Your task to perform on an android device: turn on the 24-hour format for clock Image 0: 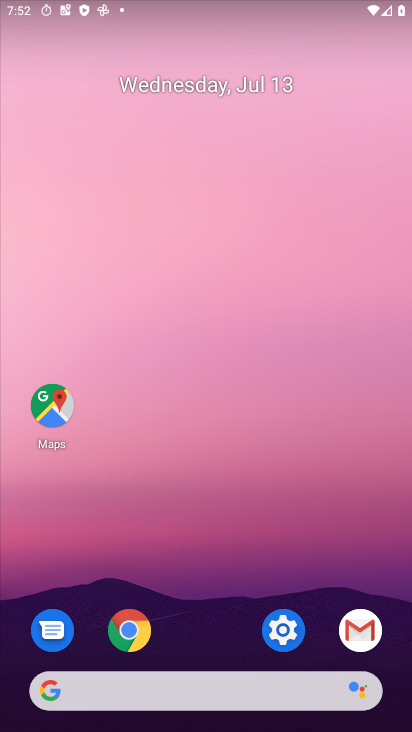
Step 0: drag from (247, 662) to (304, 131)
Your task to perform on an android device: turn on the 24-hour format for clock Image 1: 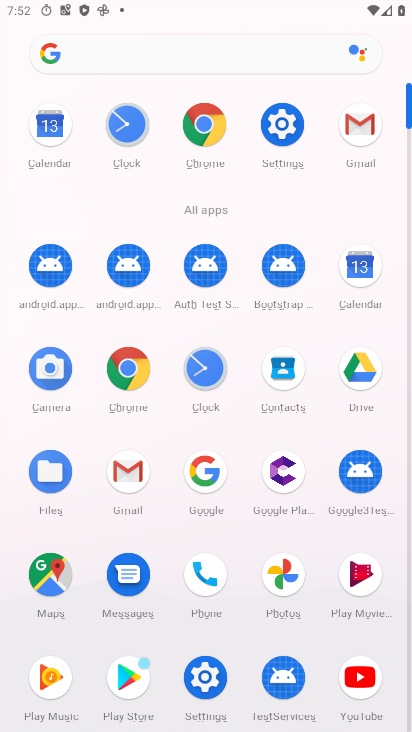
Step 1: click (197, 390)
Your task to perform on an android device: turn on the 24-hour format for clock Image 2: 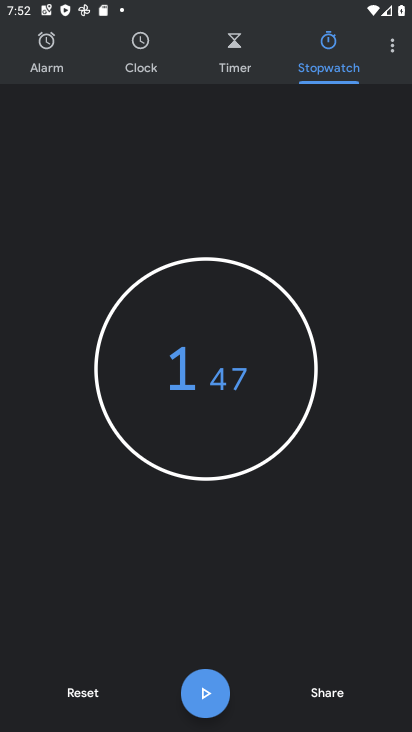
Step 2: click (391, 49)
Your task to perform on an android device: turn on the 24-hour format for clock Image 3: 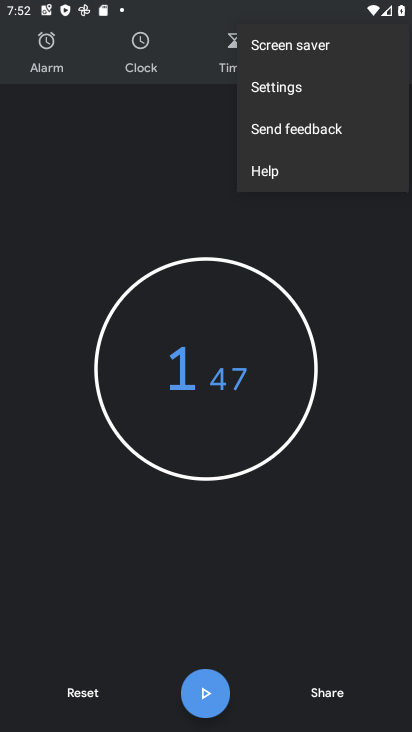
Step 3: click (278, 95)
Your task to perform on an android device: turn on the 24-hour format for clock Image 4: 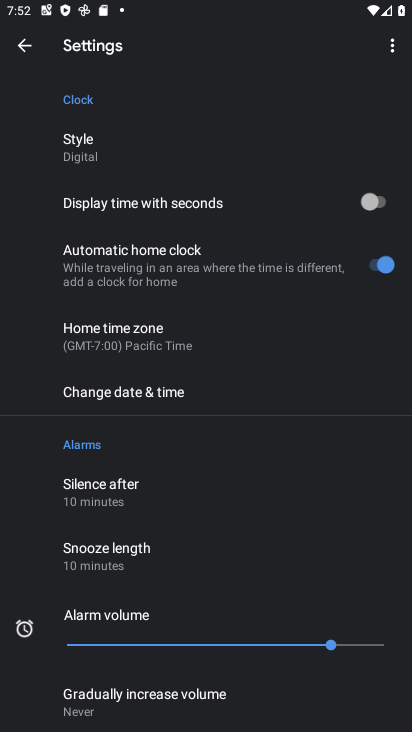
Step 4: click (113, 401)
Your task to perform on an android device: turn on the 24-hour format for clock Image 5: 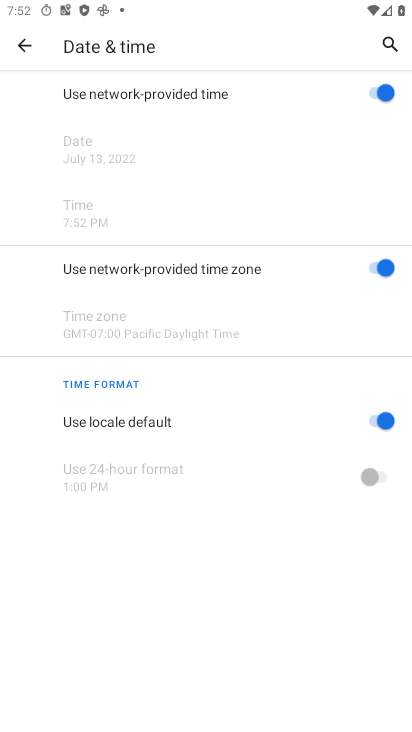
Step 5: click (380, 416)
Your task to perform on an android device: turn on the 24-hour format for clock Image 6: 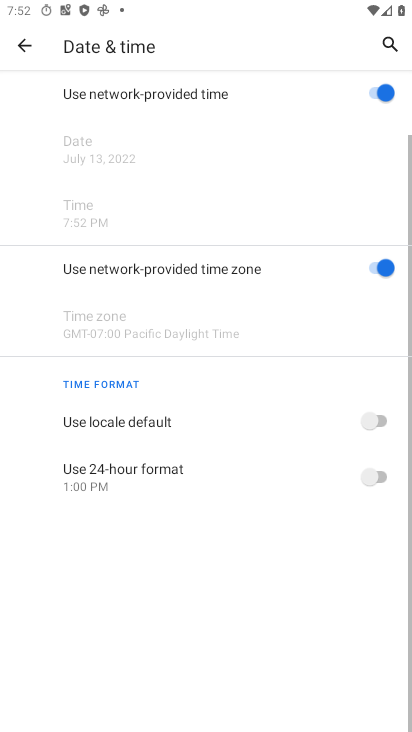
Step 6: click (373, 471)
Your task to perform on an android device: turn on the 24-hour format for clock Image 7: 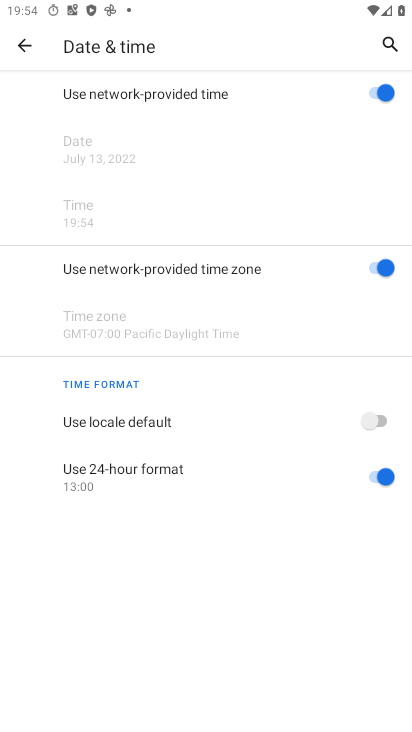
Step 7: task complete